Your task to perform on an android device: What's the weather going to be this weekend? Image 0: 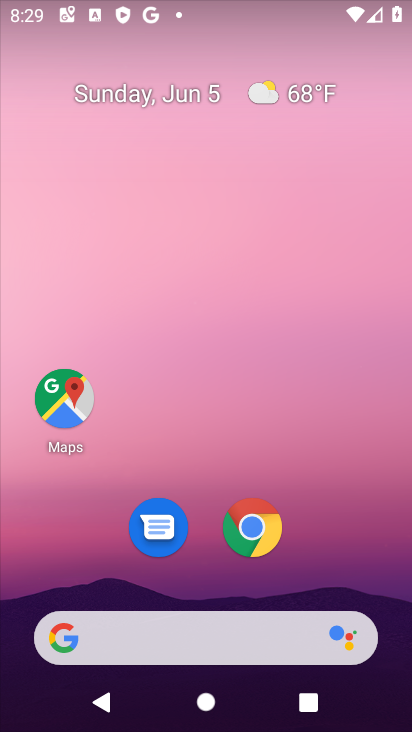
Step 0: click (314, 89)
Your task to perform on an android device: What's the weather going to be this weekend? Image 1: 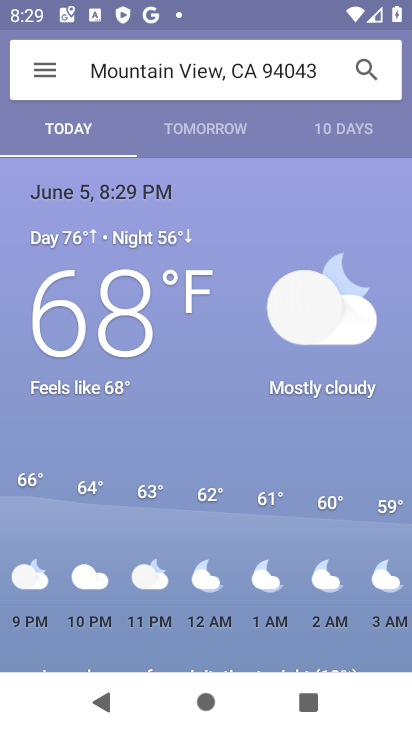
Step 1: drag from (125, 647) to (155, 289)
Your task to perform on an android device: What's the weather going to be this weekend? Image 2: 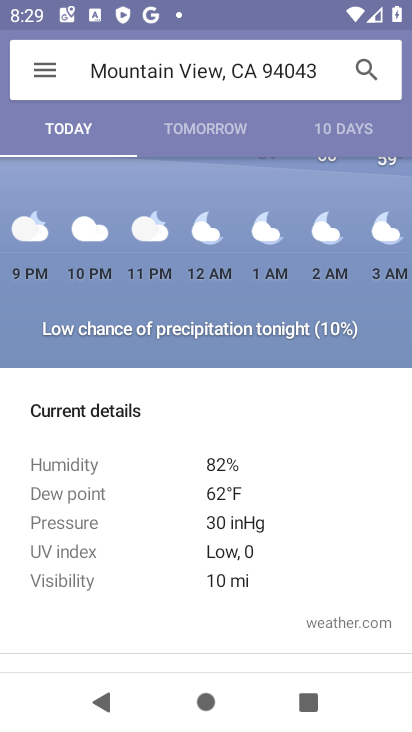
Step 2: drag from (150, 519) to (148, 227)
Your task to perform on an android device: What's the weather going to be this weekend? Image 3: 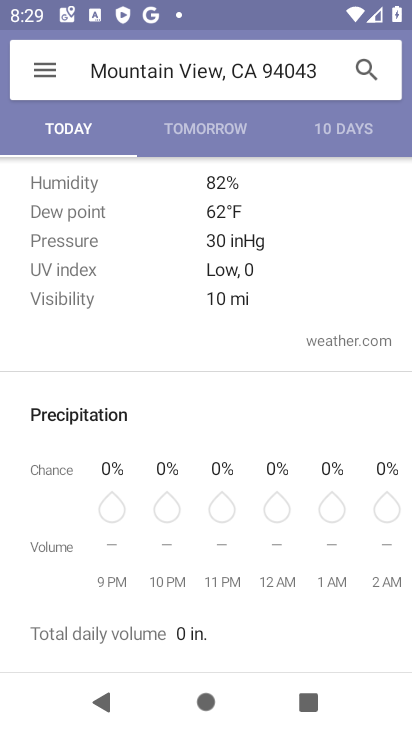
Step 3: click (309, 135)
Your task to perform on an android device: What's the weather going to be this weekend? Image 4: 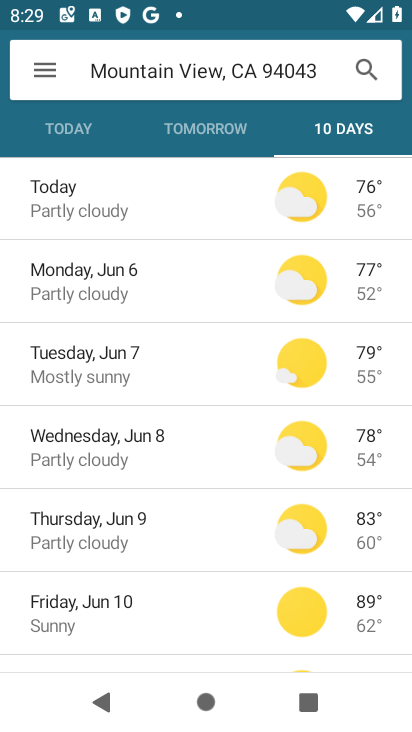
Step 4: task complete